Your task to perform on an android device: Play the last video I watched on Youtube Image 0: 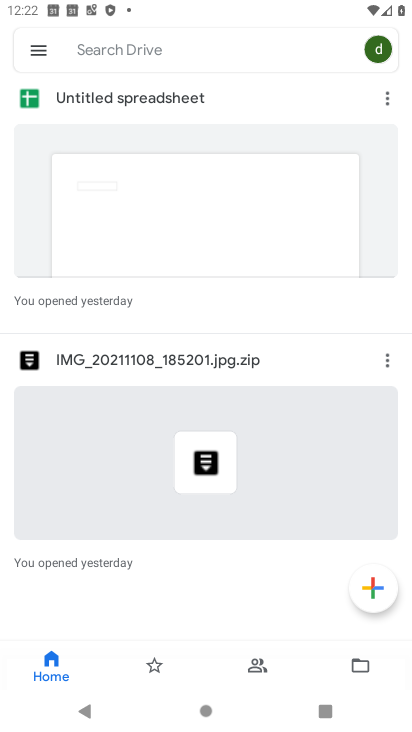
Step 0: press home button
Your task to perform on an android device: Play the last video I watched on Youtube Image 1: 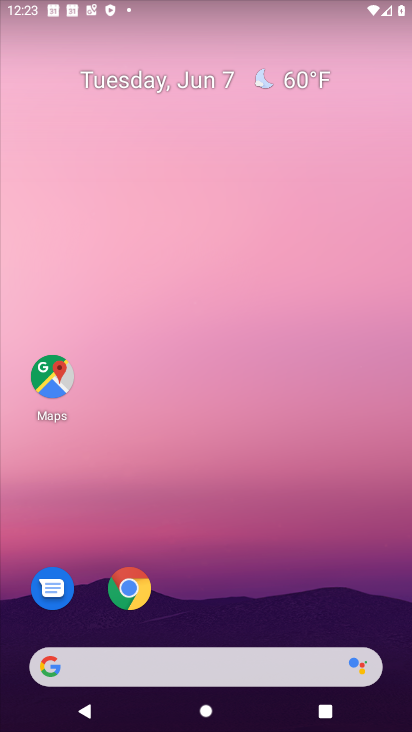
Step 1: drag from (129, 714) to (209, 116)
Your task to perform on an android device: Play the last video I watched on Youtube Image 2: 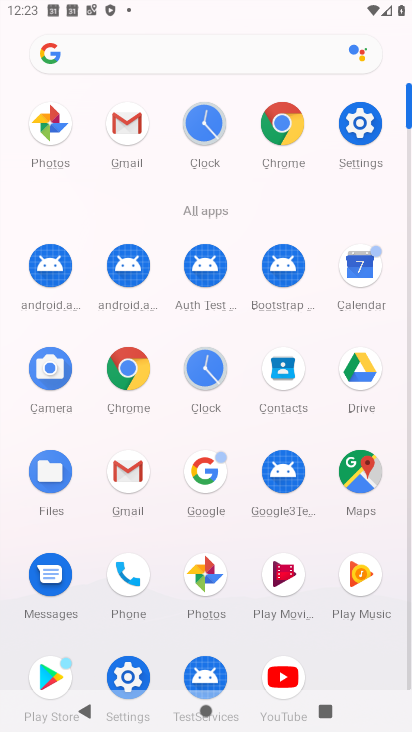
Step 2: click (284, 676)
Your task to perform on an android device: Play the last video I watched on Youtube Image 3: 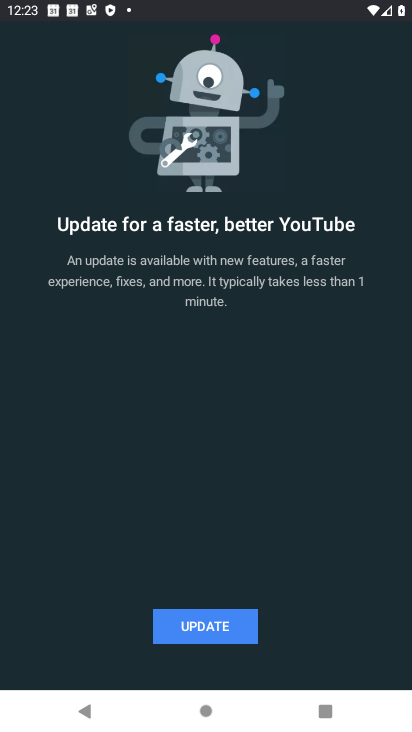
Step 3: click (198, 618)
Your task to perform on an android device: Play the last video I watched on Youtube Image 4: 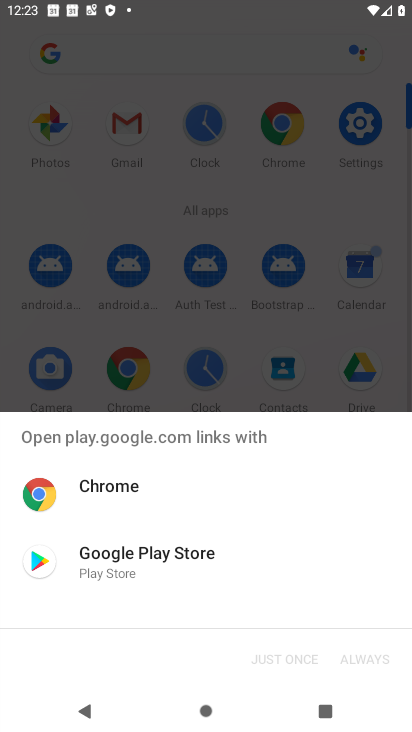
Step 4: click (108, 568)
Your task to perform on an android device: Play the last video I watched on Youtube Image 5: 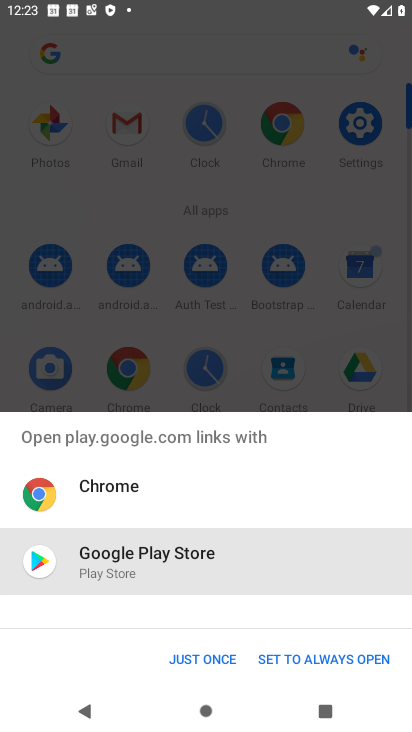
Step 5: click (232, 652)
Your task to perform on an android device: Play the last video I watched on Youtube Image 6: 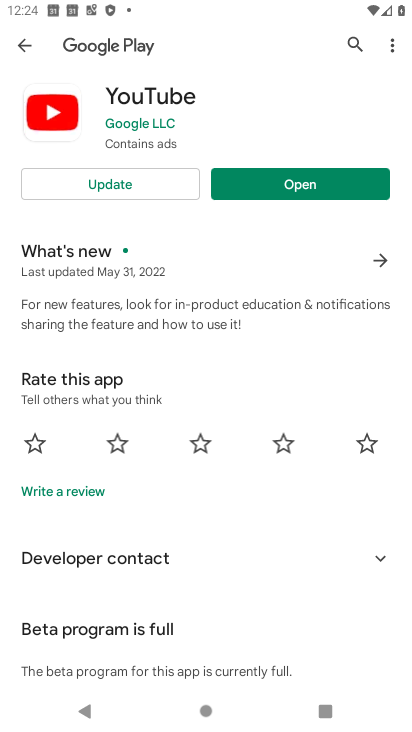
Step 6: click (55, 169)
Your task to perform on an android device: Play the last video I watched on Youtube Image 7: 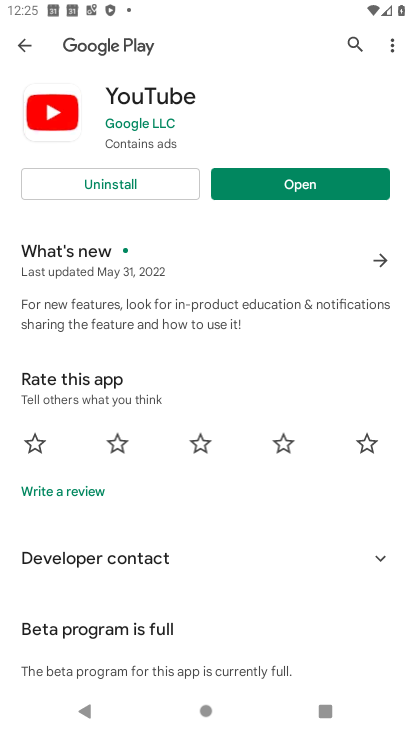
Step 7: click (265, 174)
Your task to perform on an android device: Play the last video I watched on Youtube Image 8: 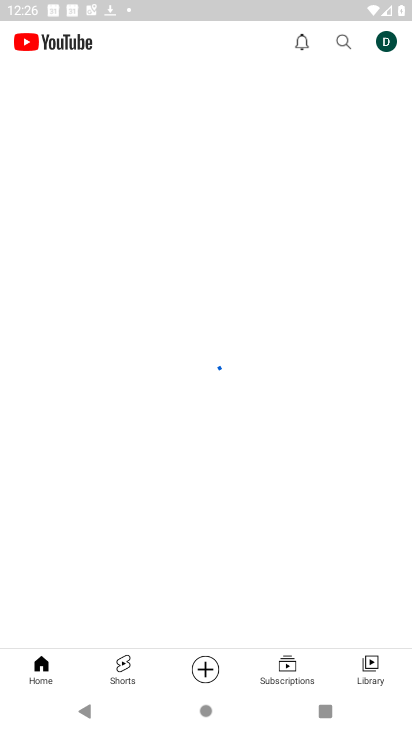
Step 8: click (365, 673)
Your task to perform on an android device: Play the last video I watched on Youtube Image 9: 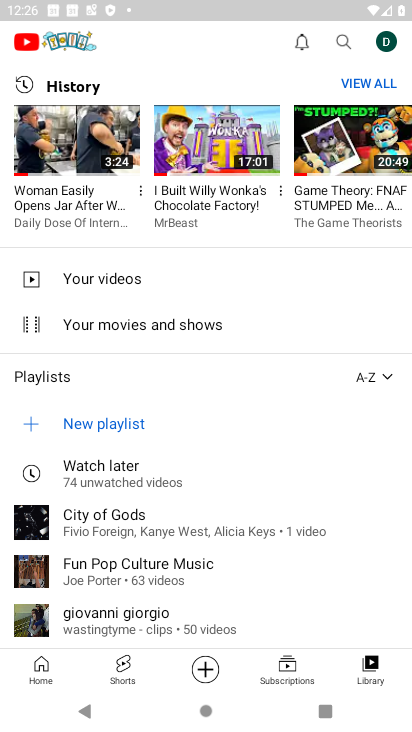
Step 9: click (54, 156)
Your task to perform on an android device: Play the last video I watched on Youtube Image 10: 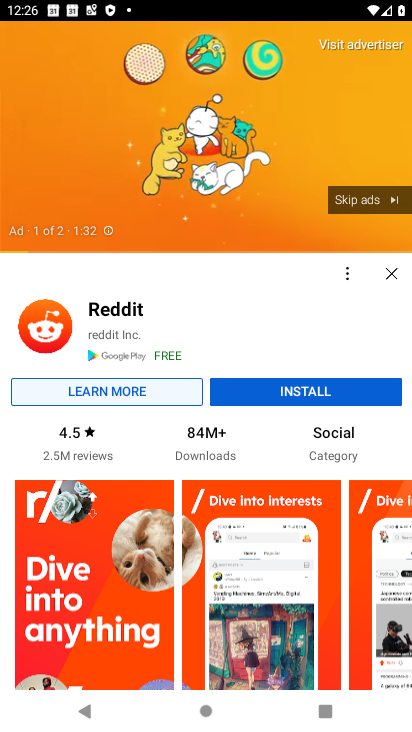
Step 10: task complete